Your task to perform on an android device: see creations saved in the google photos Image 0: 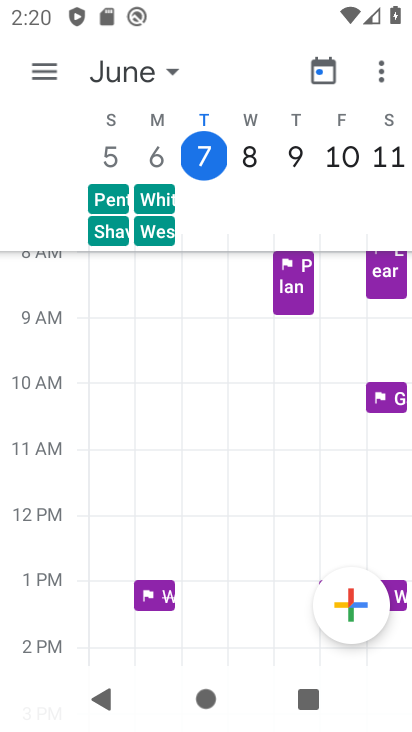
Step 0: press home button
Your task to perform on an android device: see creations saved in the google photos Image 1: 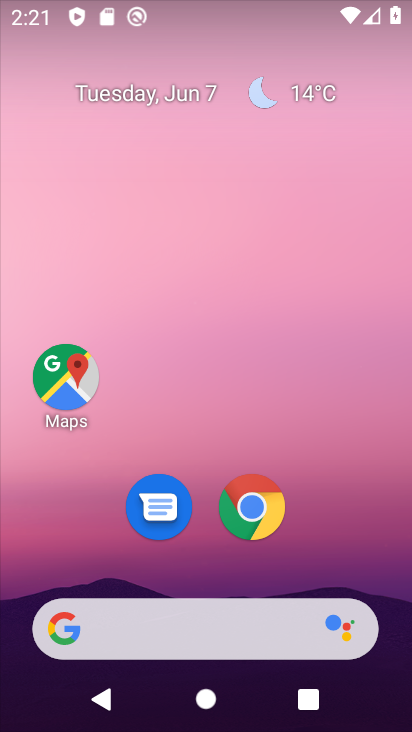
Step 1: drag from (333, 496) to (287, 86)
Your task to perform on an android device: see creations saved in the google photos Image 2: 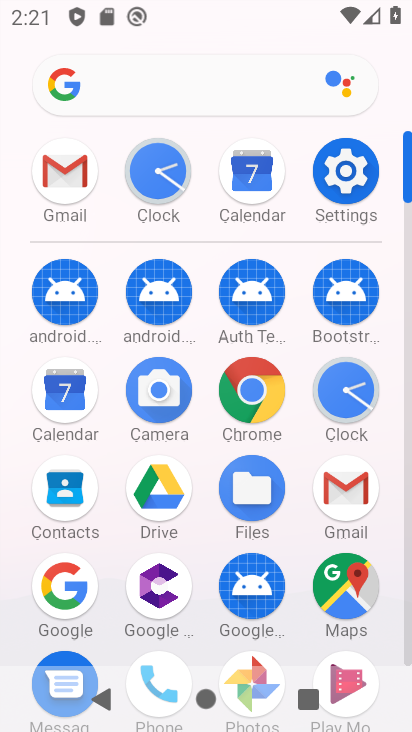
Step 2: drag from (293, 631) to (326, 425)
Your task to perform on an android device: see creations saved in the google photos Image 3: 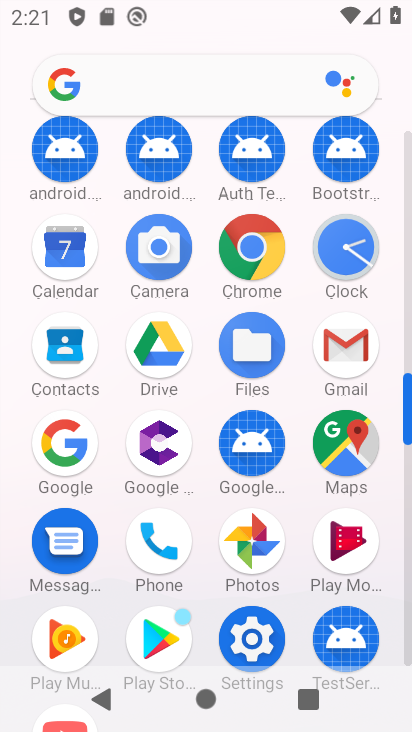
Step 3: click (264, 544)
Your task to perform on an android device: see creations saved in the google photos Image 4: 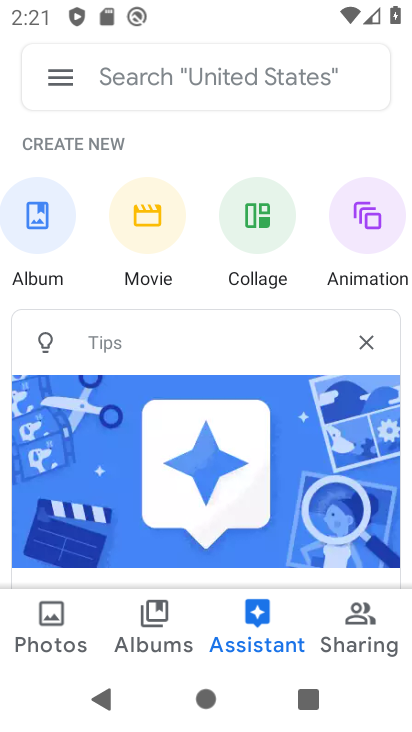
Step 4: task complete